Your task to perform on an android device: remove spam from my inbox in the gmail app Image 0: 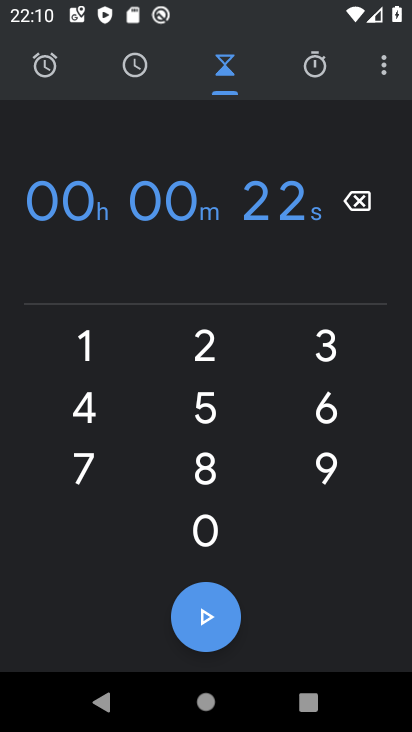
Step 0: press home button
Your task to perform on an android device: remove spam from my inbox in the gmail app Image 1: 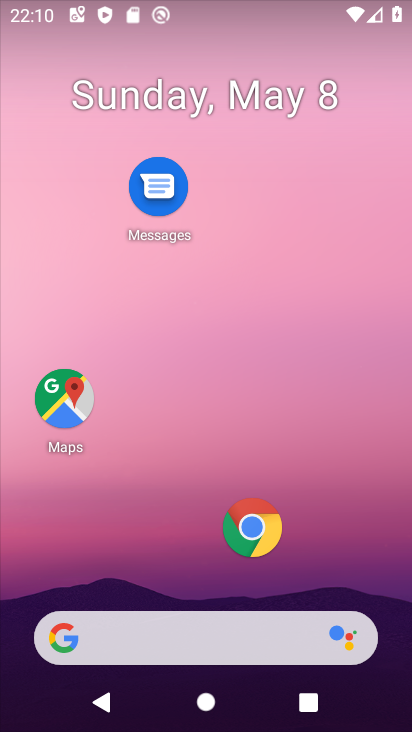
Step 1: drag from (164, 558) to (206, 115)
Your task to perform on an android device: remove spam from my inbox in the gmail app Image 2: 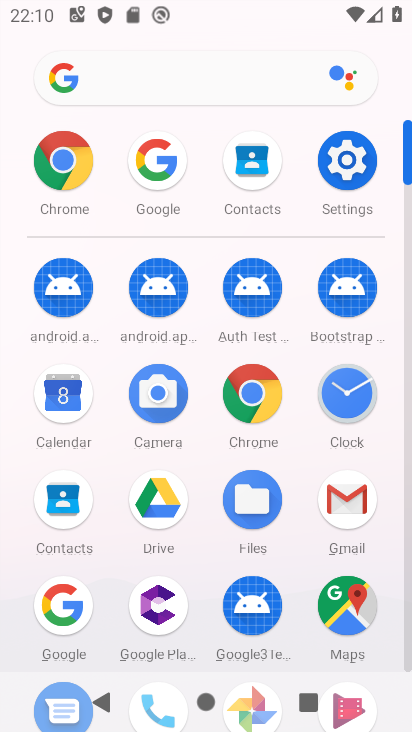
Step 2: click (344, 500)
Your task to perform on an android device: remove spam from my inbox in the gmail app Image 3: 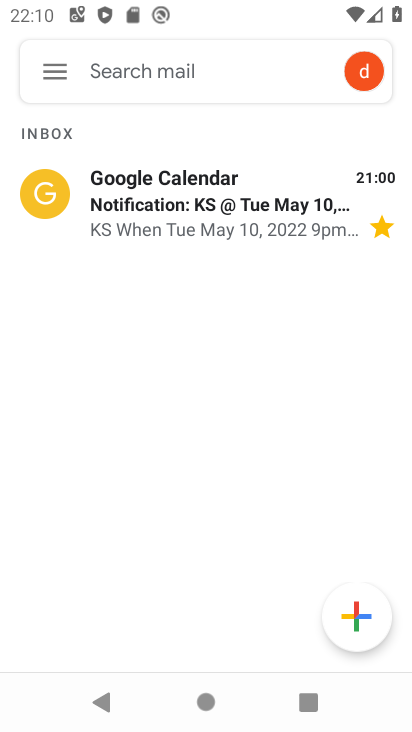
Step 3: click (55, 73)
Your task to perform on an android device: remove spam from my inbox in the gmail app Image 4: 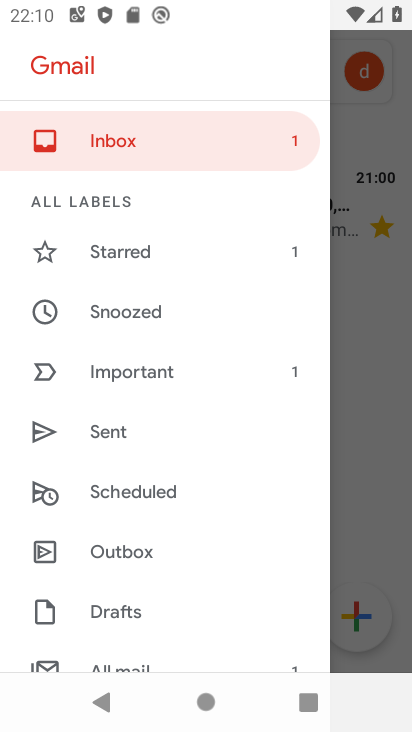
Step 4: click (118, 153)
Your task to perform on an android device: remove spam from my inbox in the gmail app Image 5: 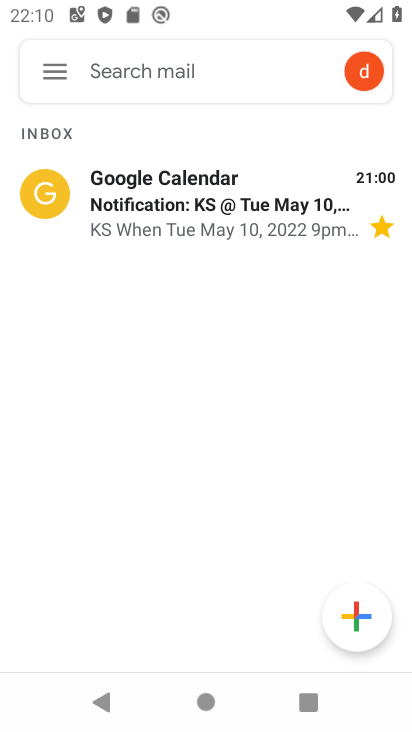
Step 5: task complete